Your task to perform on an android device: Open Amazon Image 0: 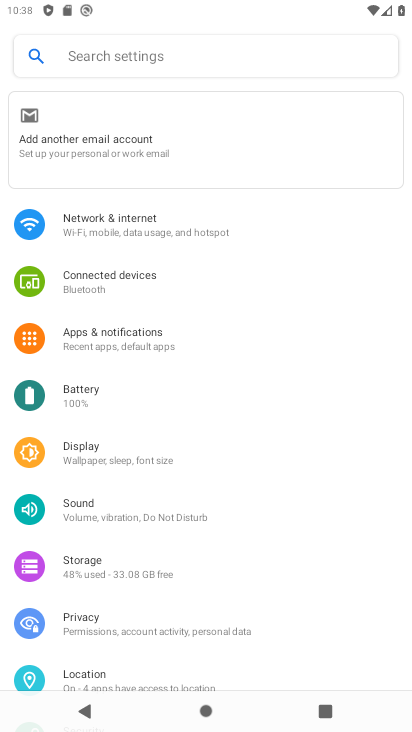
Step 0: press home button
Your task to perform on an android device: Open Amazon Image 1: 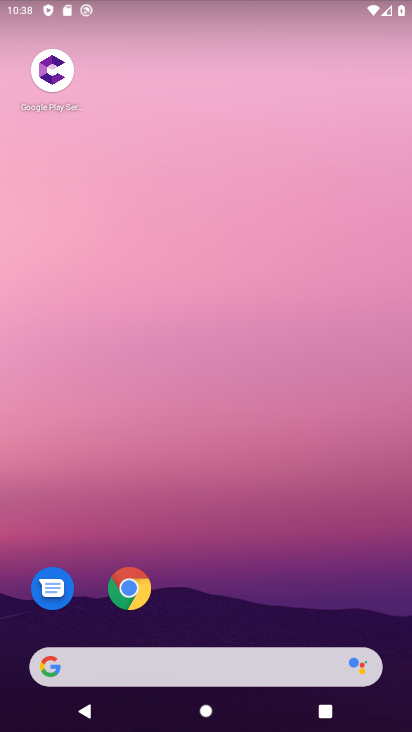
Step 1: click (132, 590)
Your task to perform on an android device: Open Amazon Image 2: 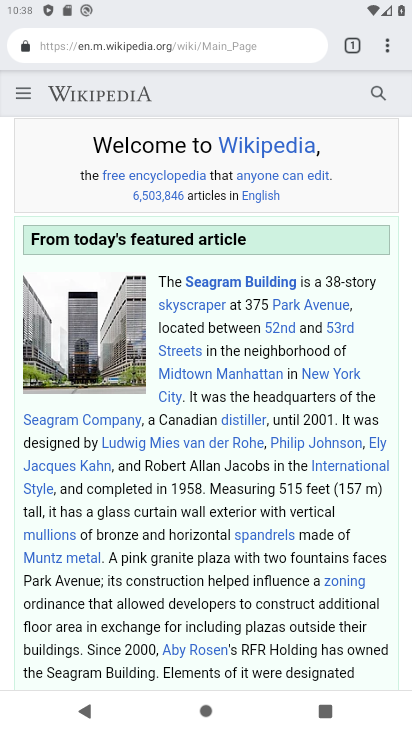
Step 2: click (353, 47)
Your task to perform on an android device: Open Amazon Image 3: 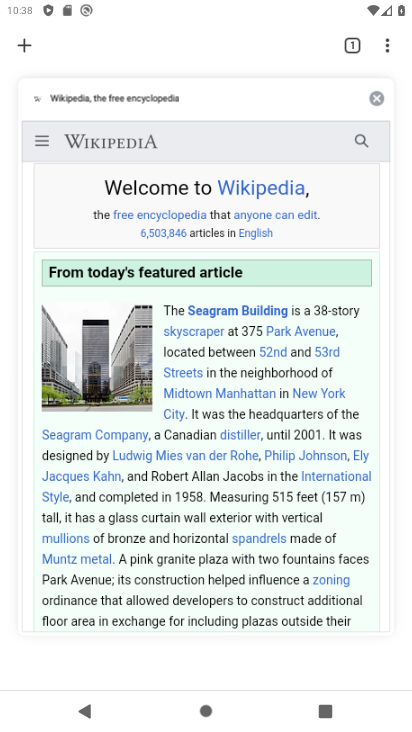
Step 3: click (25, 42)
Your task to perform on an android device: Open Amazon Image 4: 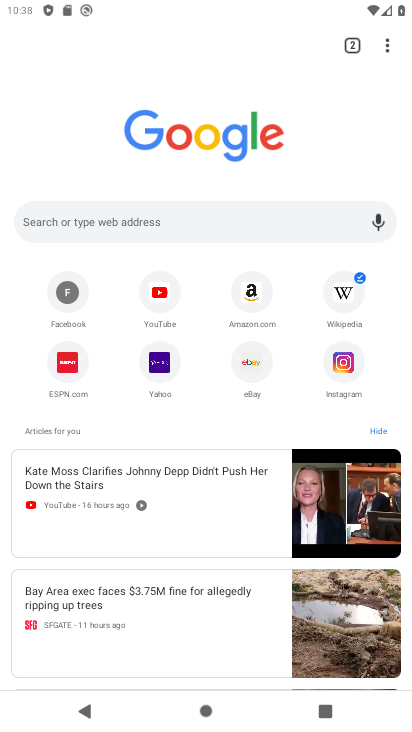
Step 4: click (260, 295)
Your task to perform on an android device: Open Amazon Image 5: 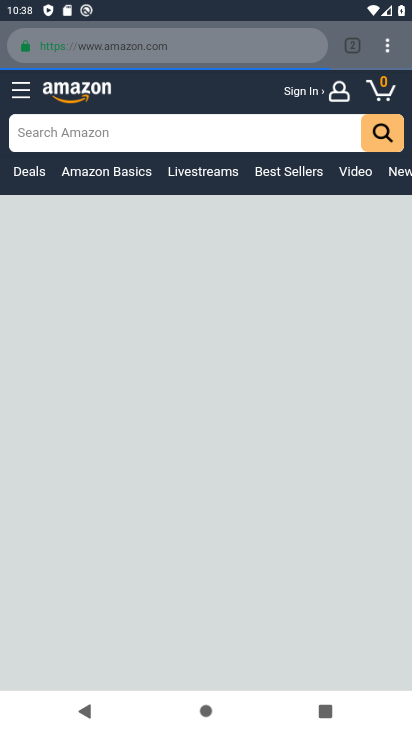
Step 5: task complete